Your task to perform on an android device: Open Reddit.com Image 0: 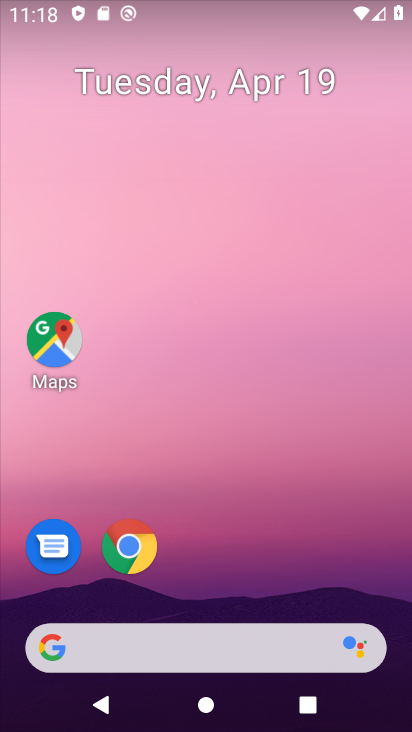
Step 0: drag from (332, 447) to (227, 0)
Your task to perform on an android device: Open Reddit.com Image 1: 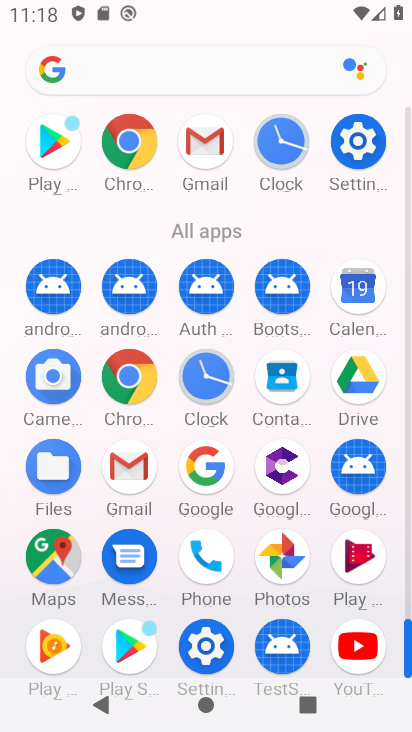
Step 1: drag from (13, 510) to (15, 318)
Your task to perform on an android device: Open Reddit.com Image 2: 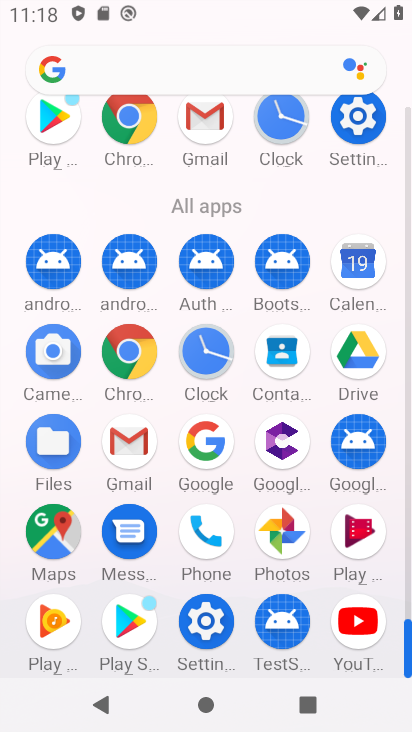
Step 2: click (127, 347)
Your task to perform on an android device: Open Reddit.com Image 3: 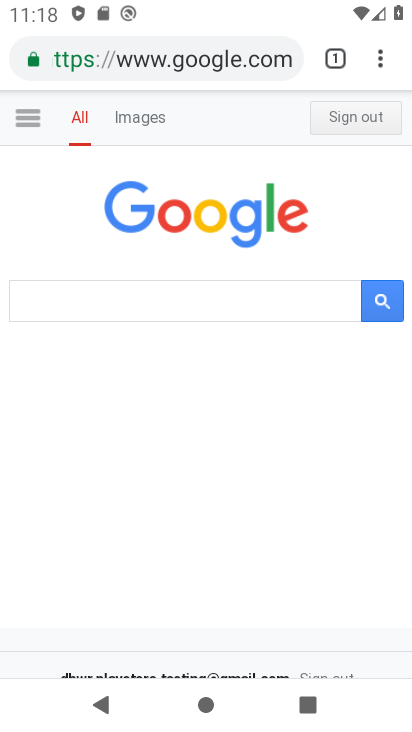
Step 3: click (180, 63)
Your task to perform on an android device: Open Reddit.com Image 4: 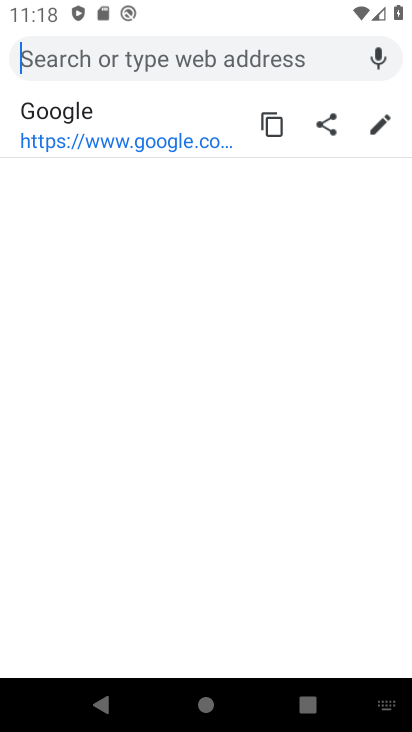
Step 4: type "Reddit.com"
Your task to perform on an android device: Open Reddit.com Image 5: 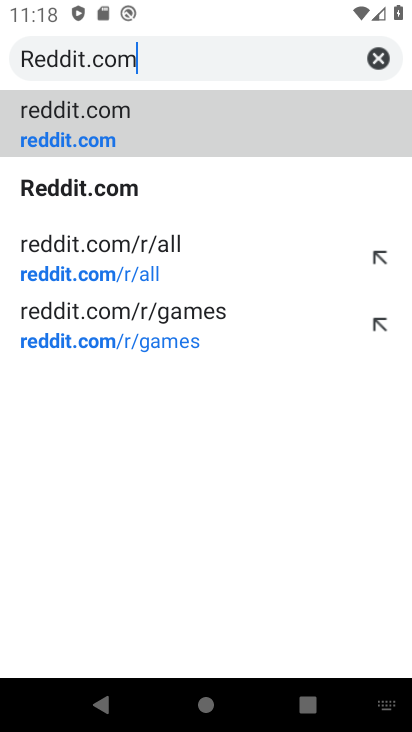
Step 5: click (166, 111)
Your task to perform on an android device: Open Reddit.com Image 6: 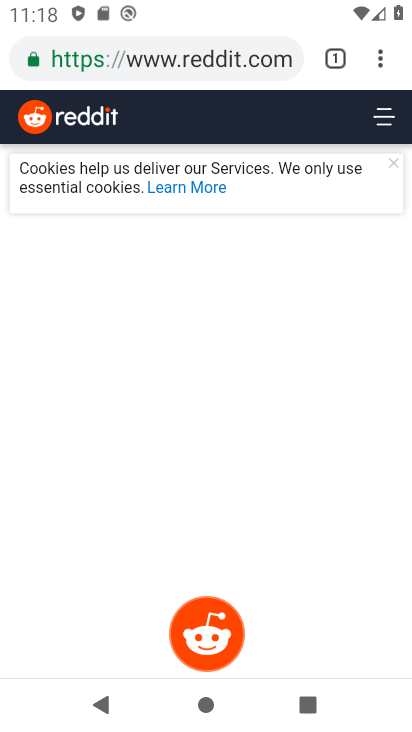
Step 6: task complete